Your task to perform on an android device: delete the emails in spam in the gmail app Image 0: 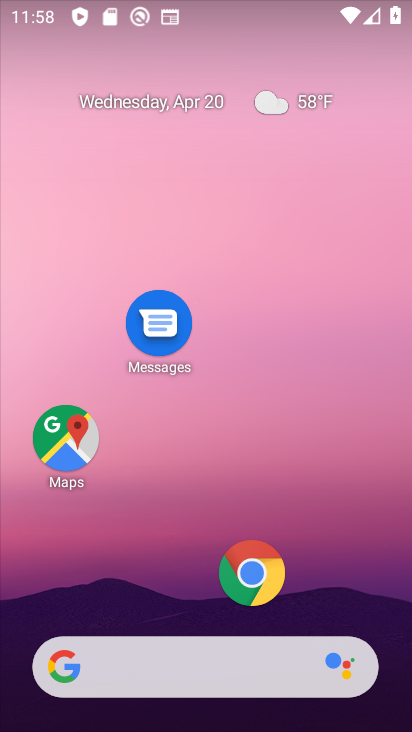
Step 0: drag from (183, 579) to (164, 101)
Your task to perform on an android device: delete the emails in spam in the gmail app Image 1: 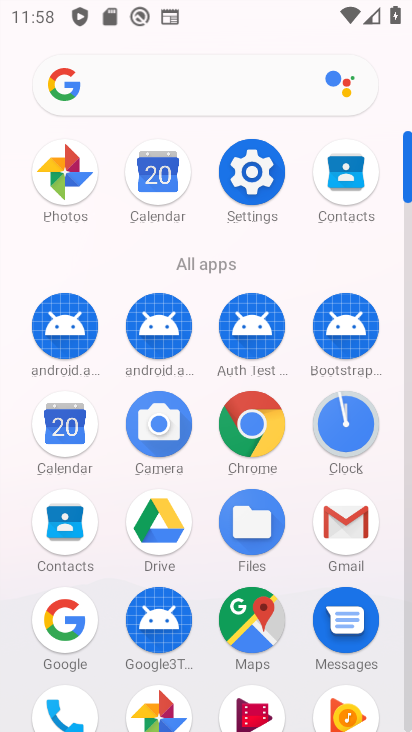
Step 1: click (340, 520)
Your task to perform on an android device: delete the emails in spam in the gmail app Image 2: 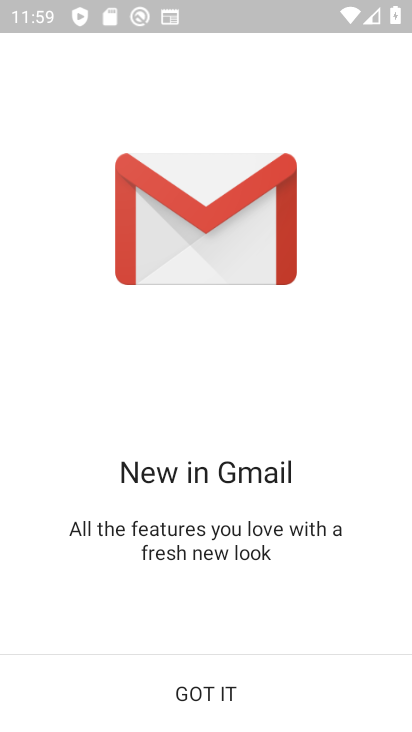
Step 2: click (204, 692)
Your task to perform on an android device: delete the emails in spam in the gmail app Image 3: 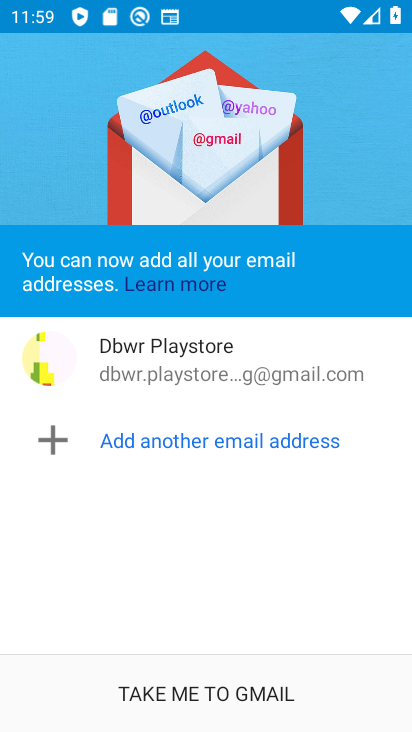
Step 3: click (204, 692)
Your task to perform on an android device: delete the emails in spam in the gmail app Image 4: 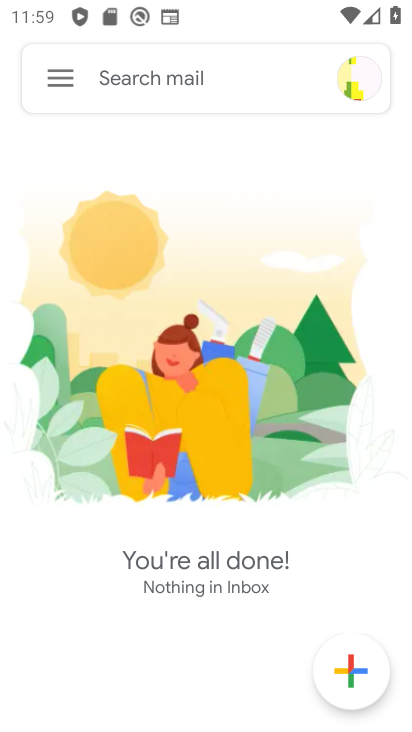
Step 4: click (59, 80)
Your task to perform on an android device: delete the emails in spam in the gmail app Image 5: 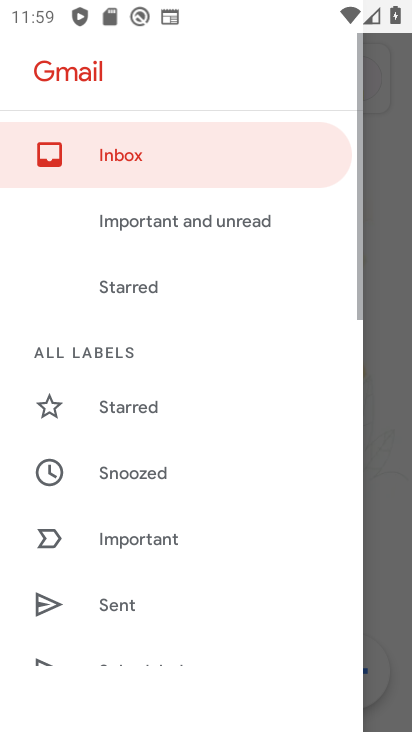
Step 5: drag from (228, 483) to (240, 115)
Your task to perform on an android device: delete the emails in spam in the gmail app Image 6: 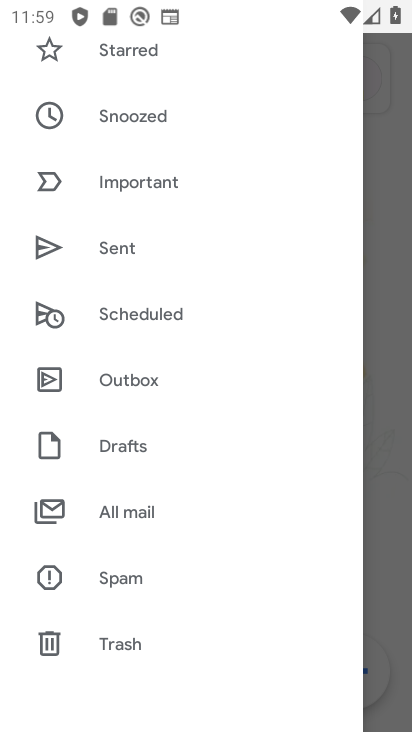
Step 6: drag from (224, 566) to (202, 288)
Your task to perform on an android device: delete the emails in spam in the gmail app Image 7: 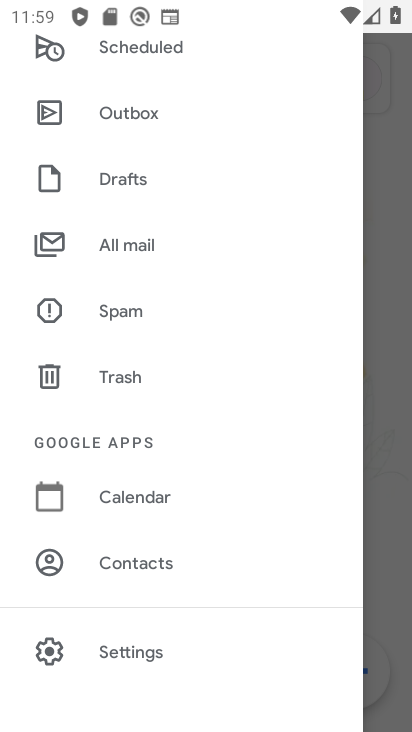
Step 7: drag from (174, 338) to (190, 460)
Your task to perform on an android device: delete the emails in spam in the gmail app Image 8: 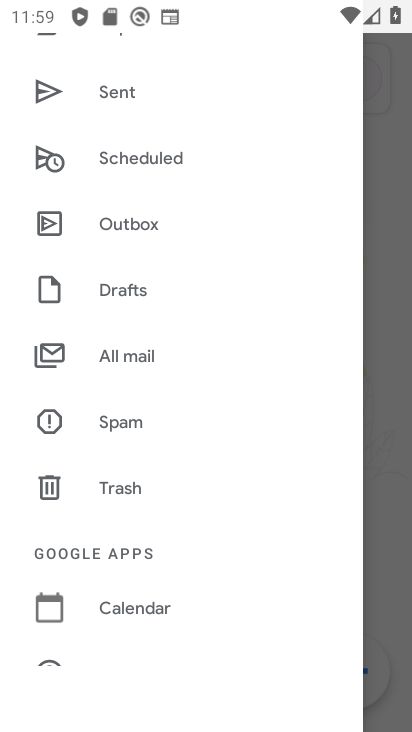
Step 8: click (122, 419)
Your task to perform on an android device: delete the emails in spam in the gmail app Image 9: 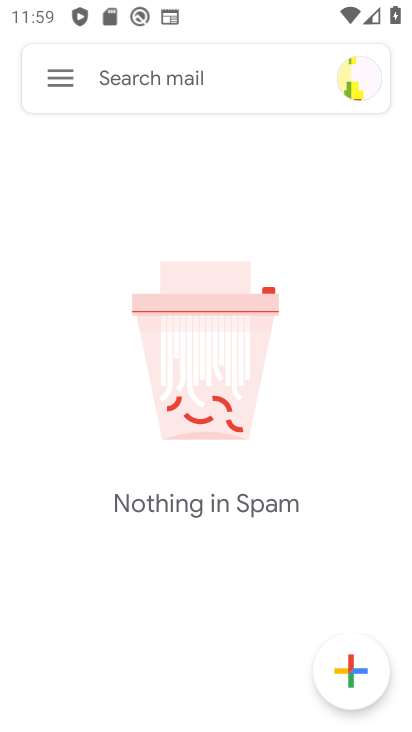
Step 9: task complete